Your task to perform on an android device: turn off improve location accuracy Image 0: 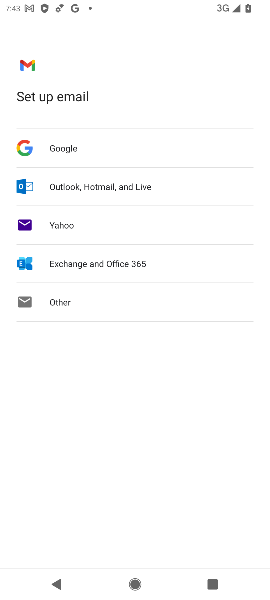
Step 0: press home button
Your task to perform on an android device: turn off improve location accuracy Image 1: 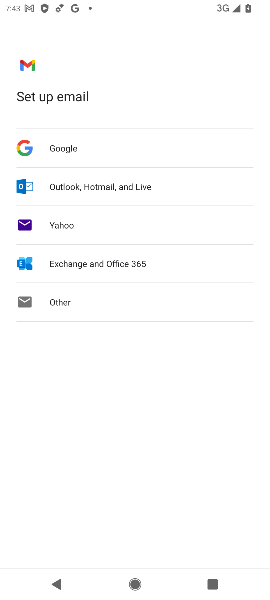
Step 1: press home button
Your task to perform on an android device: turn off improve location accuracy Image 2: 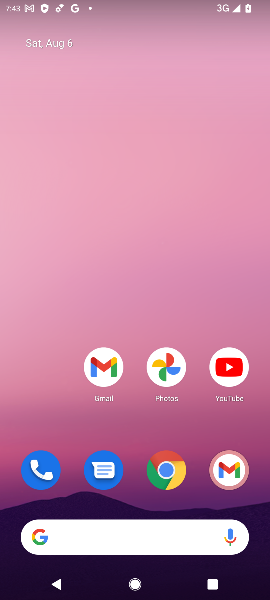
Step 2: drag from (145, 531) to (138, 125)
Your task to perform on an android device: turn off improve location accuracy Image 3: 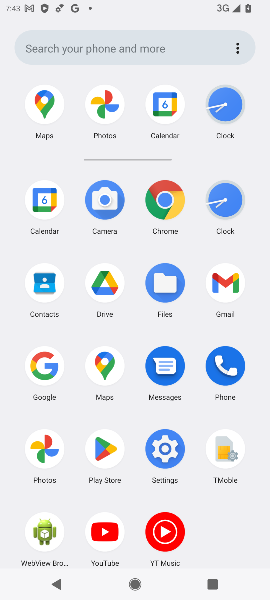
Step 3: click (170, 447)
Your task to perform on an android device: turn off improve location accuracy Image 4: 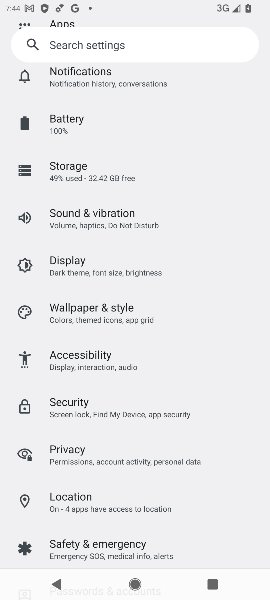
Step 4: click (70, 500)
Your task to perform on an android device: turn off improve location accuracy Image 5: 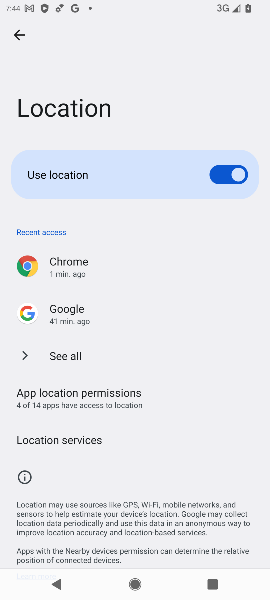
Step 5: task complete